Your task to perform on an android device: toggle sleep mode Image 0: 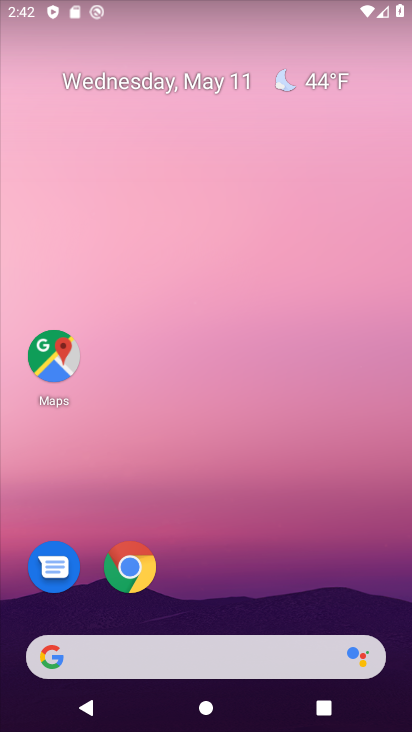
Step 0: drag from (218, 507) to (221, 26)
Your task to perform on an android device: toggle sleep mode Image 1: 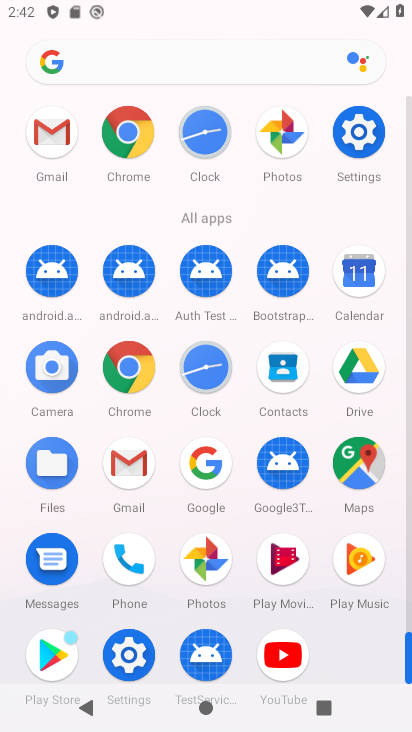
Step 1: drag from (5, 546) to (1, 395)
Your task to perform on an android device: toggle sleep mode Image 2: 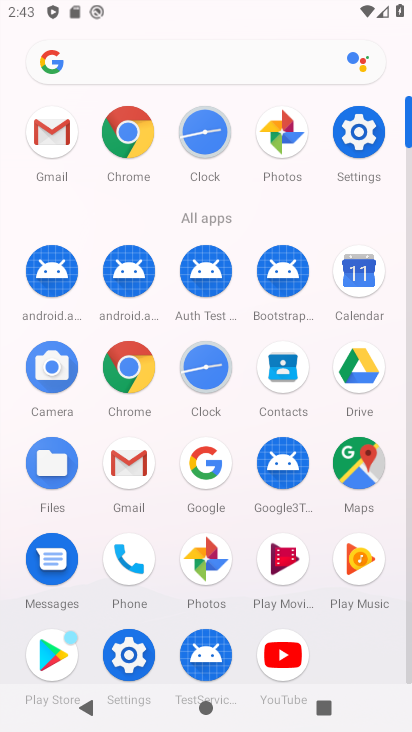
Step 2: click (125, 653)
Your task to perform on an android device: toggle sleep mode Image 3: 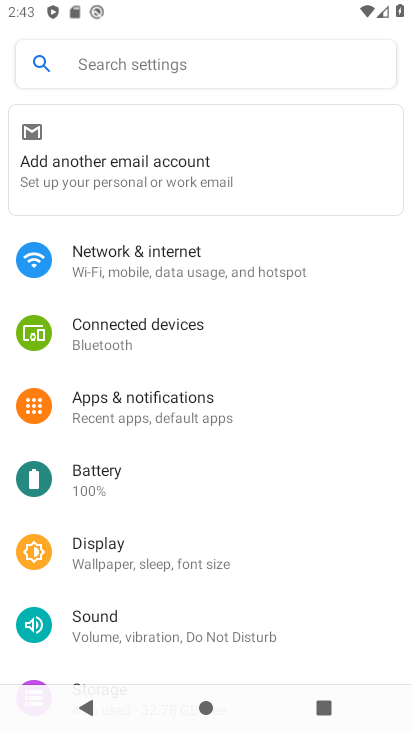
Step 3: drag from (263, 477) to (296, 196)
Your task to perform on an android device: toggle sleep mode Image 4: 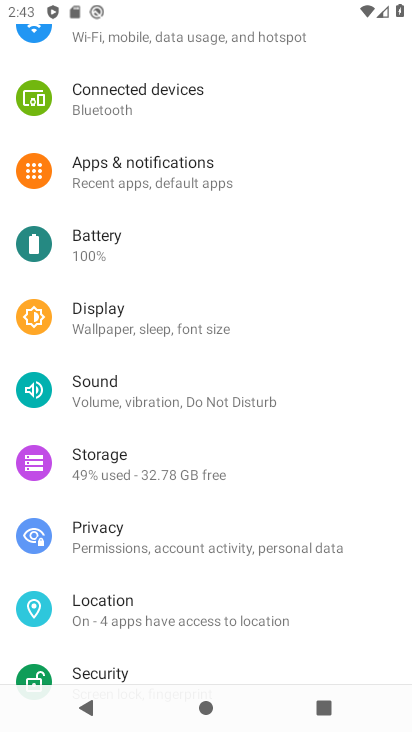
Step 4: click (182, 314)
Your task to perform on an android device: toggle sleep mode Image 5: 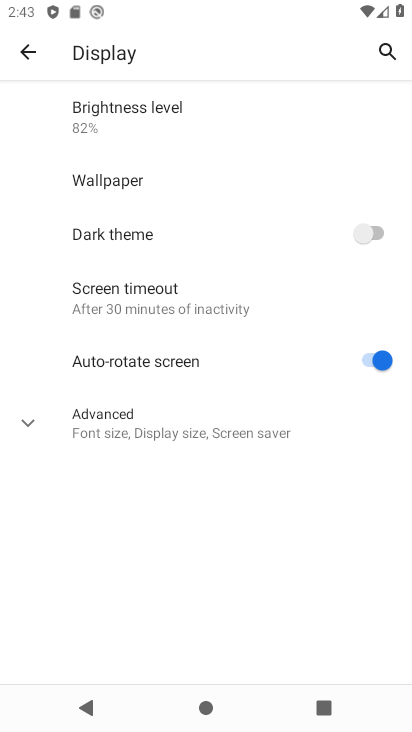
Step 5: click (31, 417)
Your task to perform on an android device: toggle sleep mode Image 6: 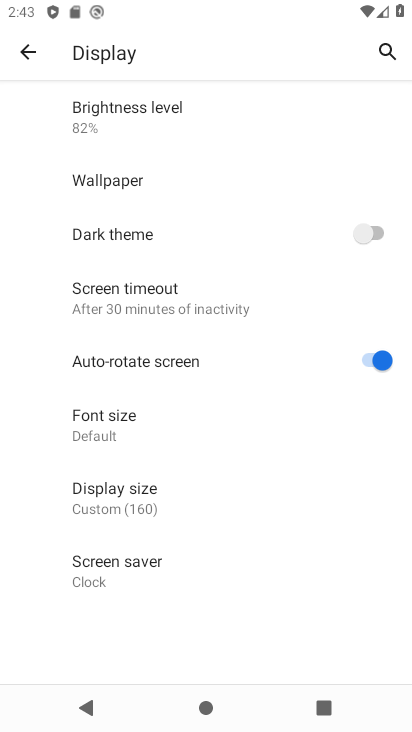
Step 6: task complete